Your task to perform on an android device: See recent photos Image 0: 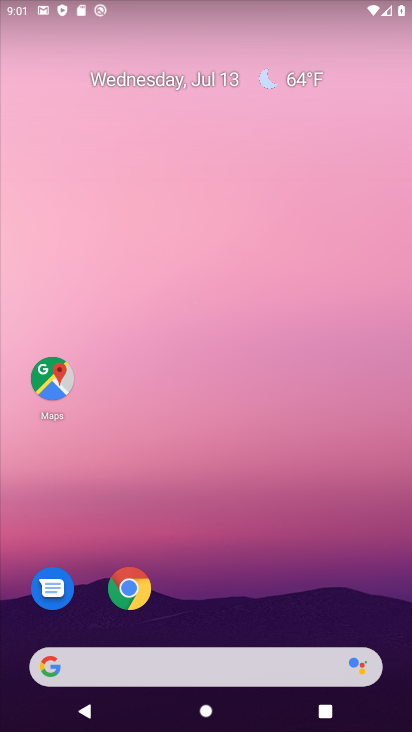
Step 0: drag from (214, 602) to (166, 17)
Your task to perform on an android device: See recent photos Image 1: 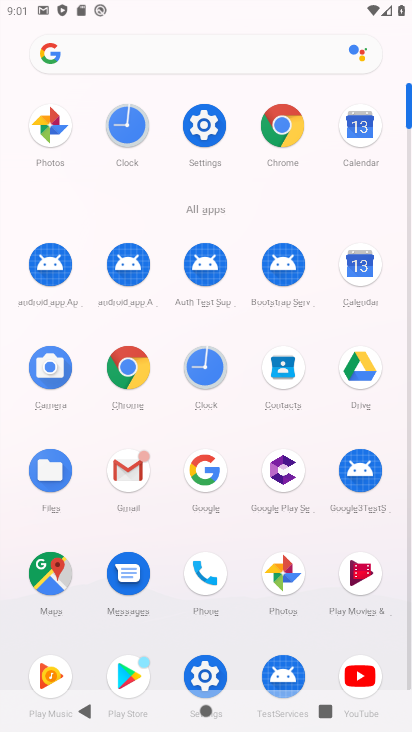
Step 1: click (279, 584)
Your task to perform on an android device: See recent photos Image 2: 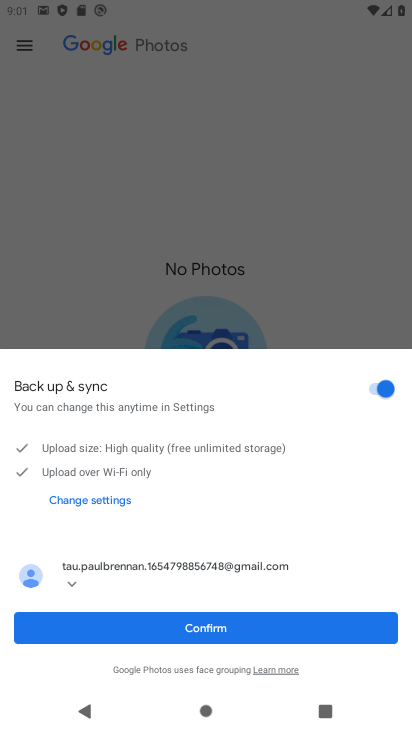
Step 2: click (280, 636)
Your task to perform on an android device: See recent photos Image 3: 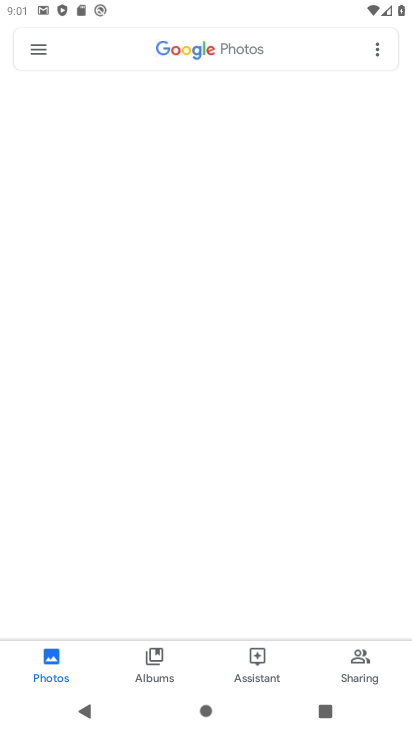
Step 3: task complete